Your task to perform on an android device: Search for macbook pro 13 inch on ebay.com, select the first entry, and add it to the cart. Image 0: 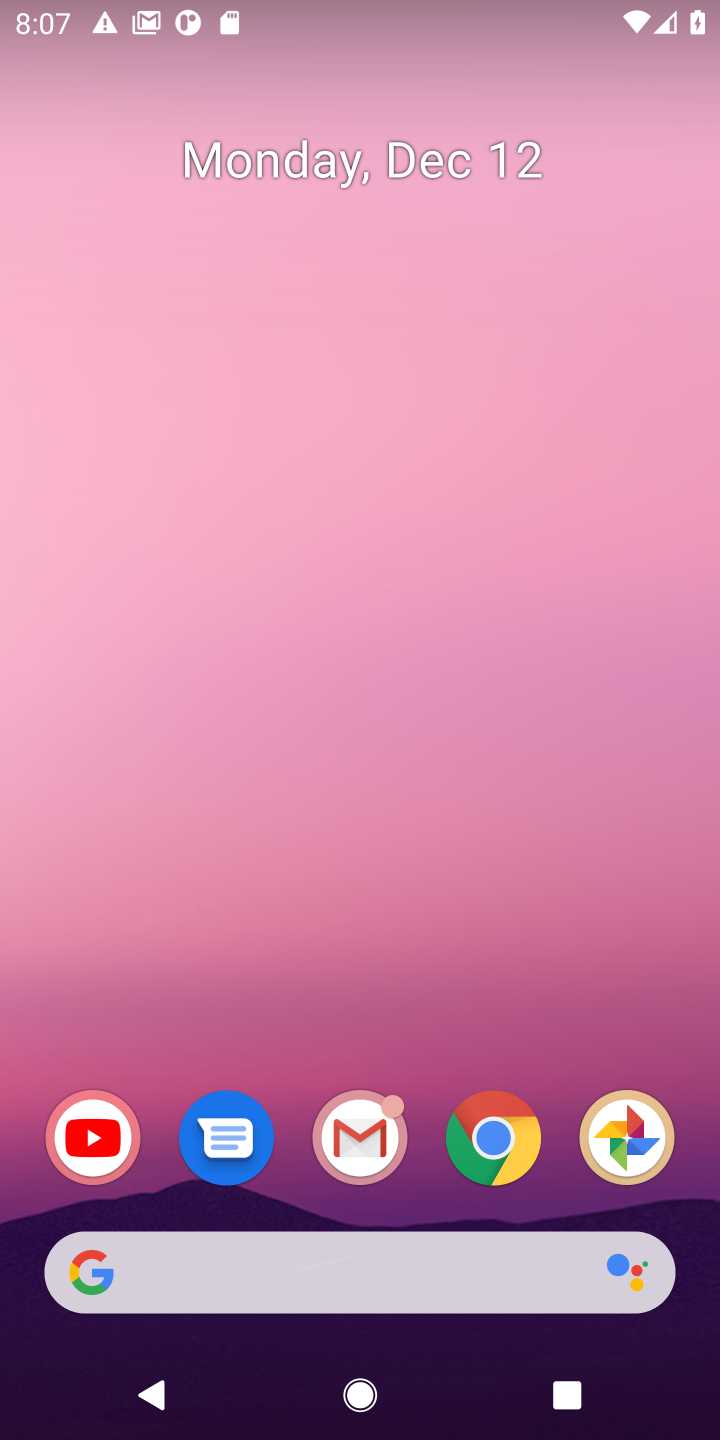
Step 0: drag from (347, 963) to (347, 414)
Your task to perform on an android device: Search for macbook pro 13 inch on ebay.com, select the first entry, and add it to the cart. Image 1: 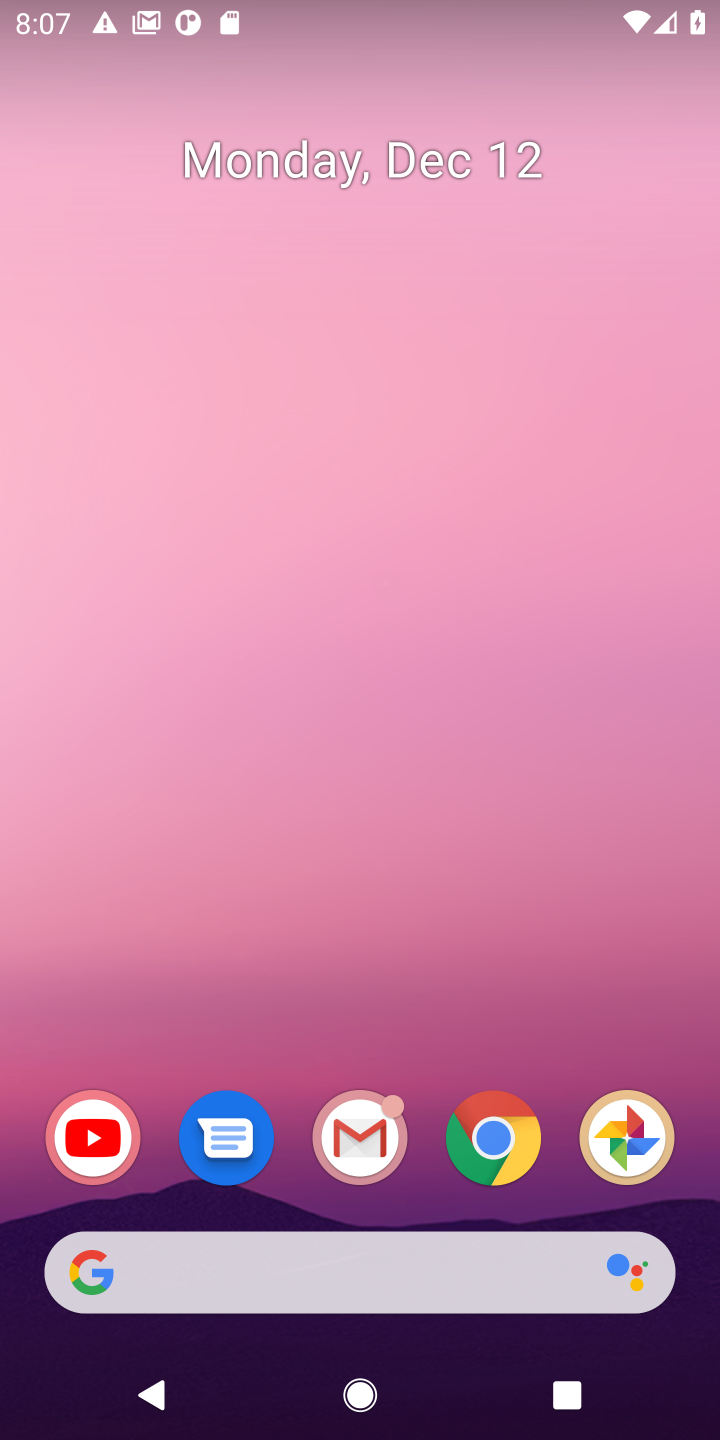
Step 1: drag from (311, 1232) to (399, 130)
Your task to perform on an android device: Search for macbook pro 13 inch on ebay.com, select the first entry, and add it to the cart. Image 2: 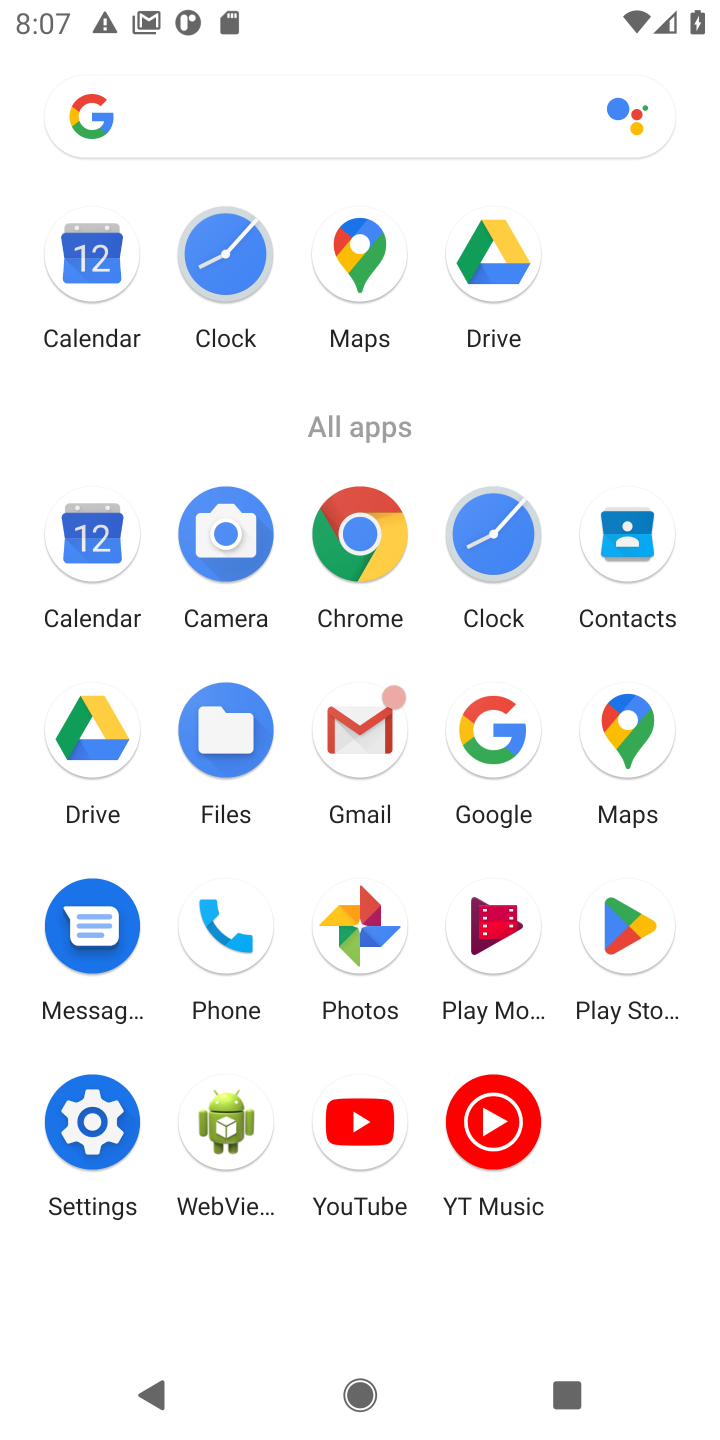
Step 2: click (489, 732)
Your task to perform on an android device: Search for macbook pro 13 inch on ebay.com, select the first entry, and add it to the cart. Image 3: 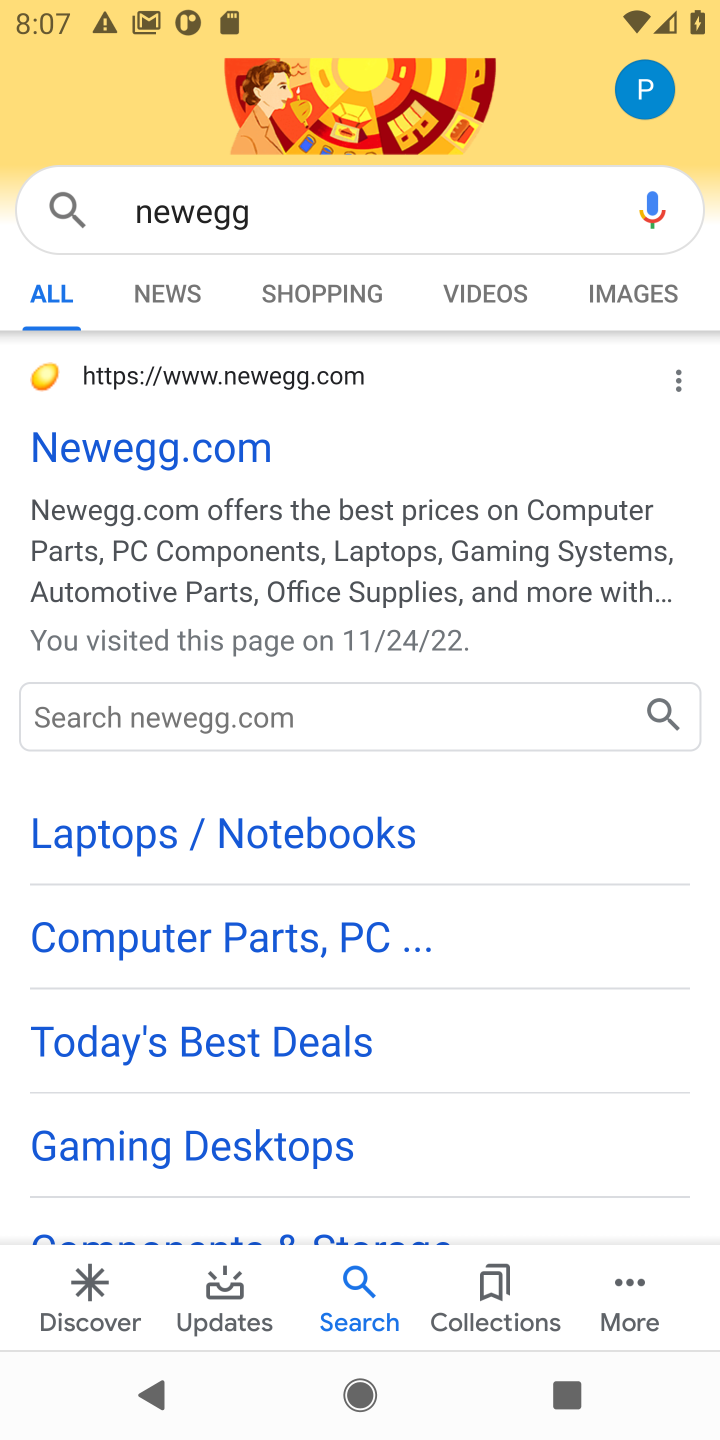
Step 3: click (200, 230)
Your task to perform on an android device: Search for macbook pro 13 inch on ebay.com, select the first entry, and add it to the cart. Image 4: 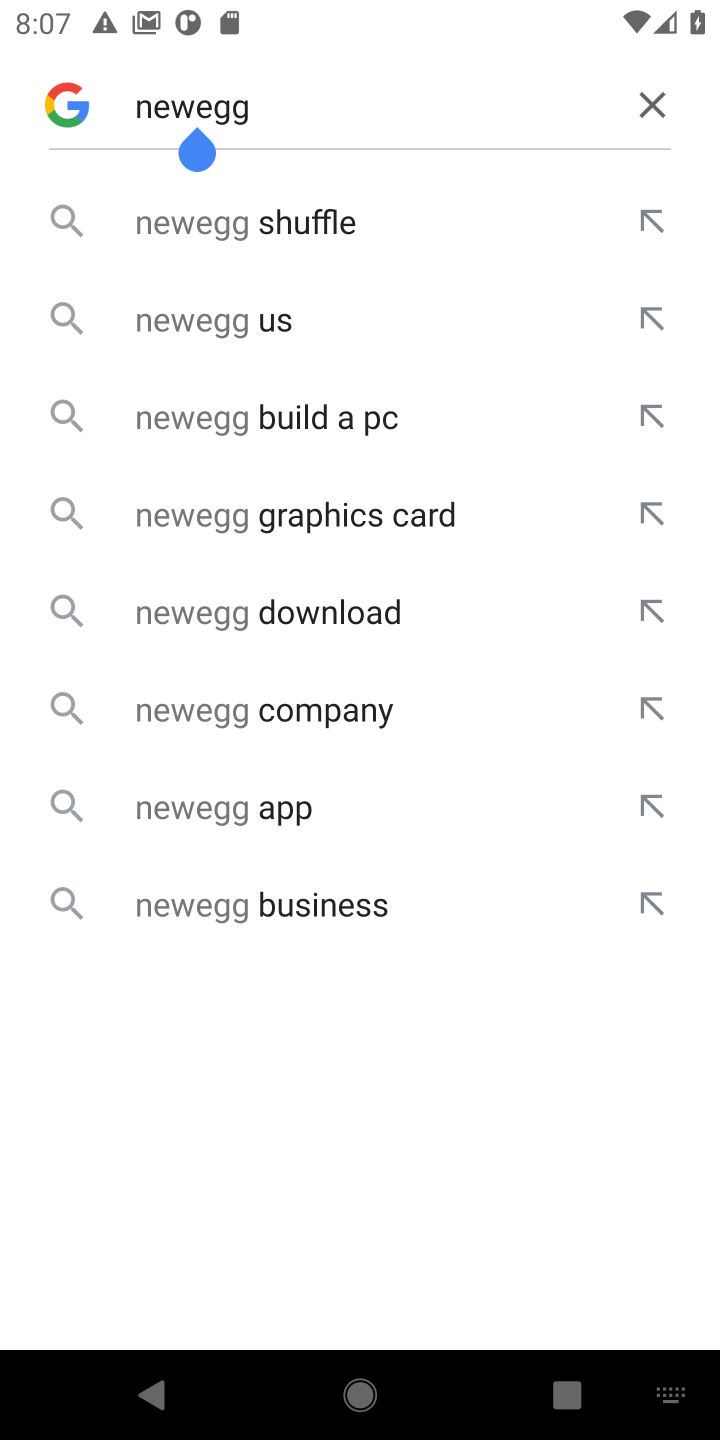
Step 4: click (646, 99)
Your task to perform on an android device: Search for macbook pro 13 inch on ebay.com, select the first entry, and add it to the cart. Image 5: 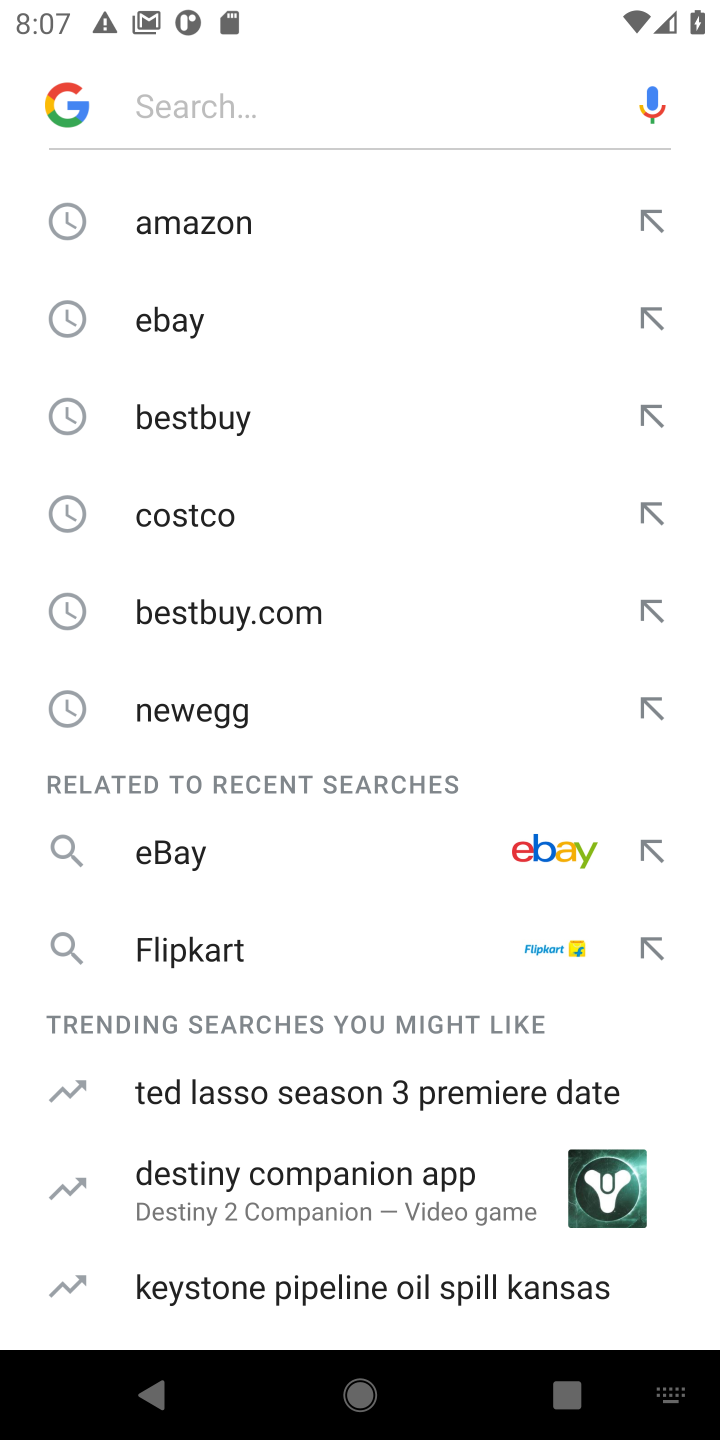
Step 5: click (152, 317)
Your task to perform on an android device: Search for macbook pro 13 inch on ebay.com, select the first entry, and add it to the cart. Image 6: 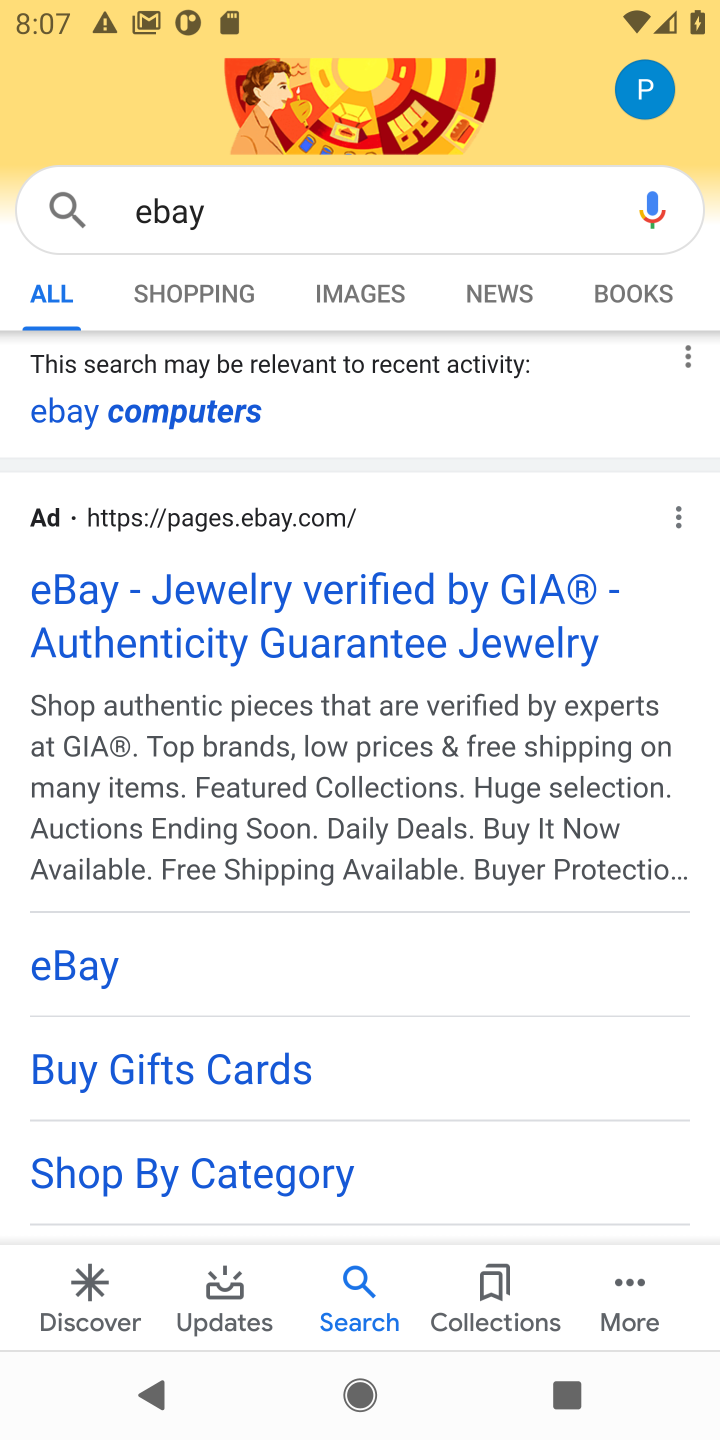
Step 6: click (151, 645)
Your task to perform on an android device: Search for macbook pro 13 inch on ebay.com, select the first entry, and add it to the cart. Image 7: 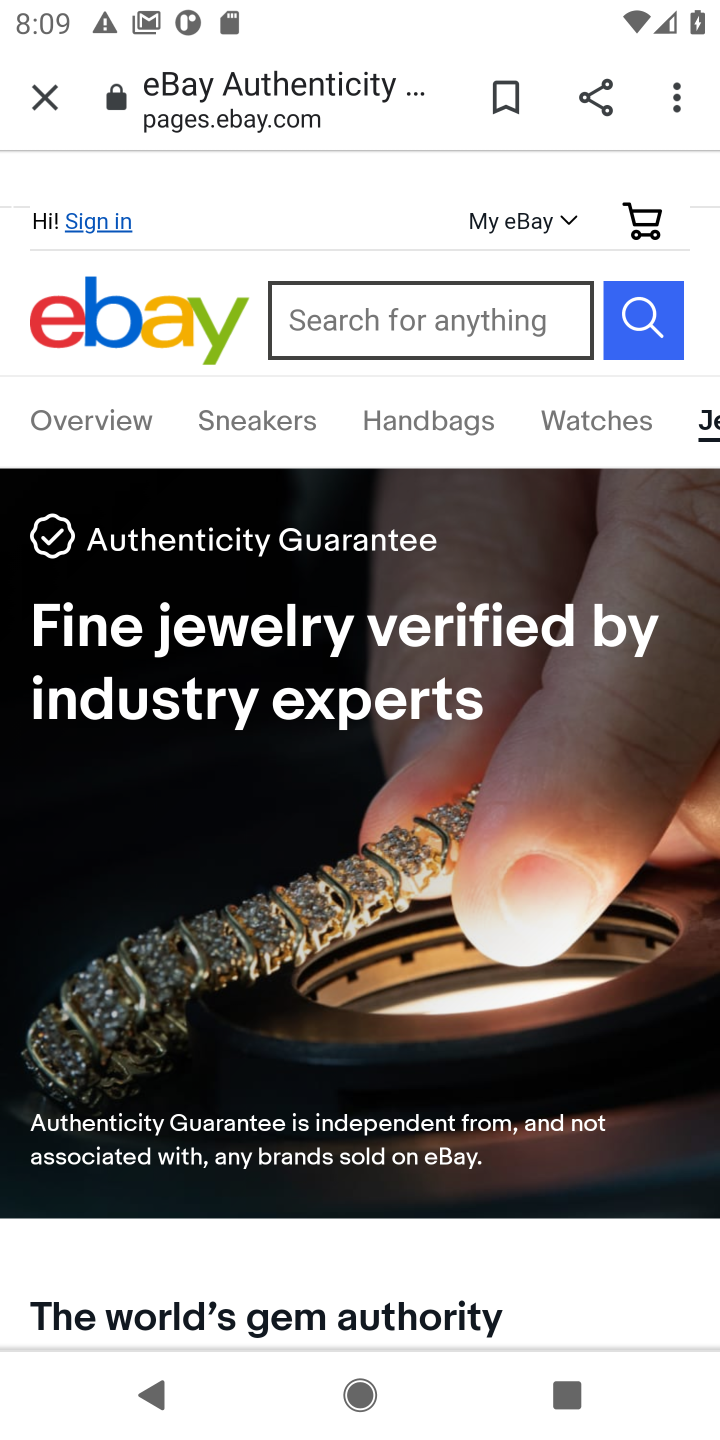
Step 7: click (394, 309)
Your task to perform on an android device: Search for macbook pro 13 inch on ebay.com, select the first entry, and add it to the cart. Image 8: 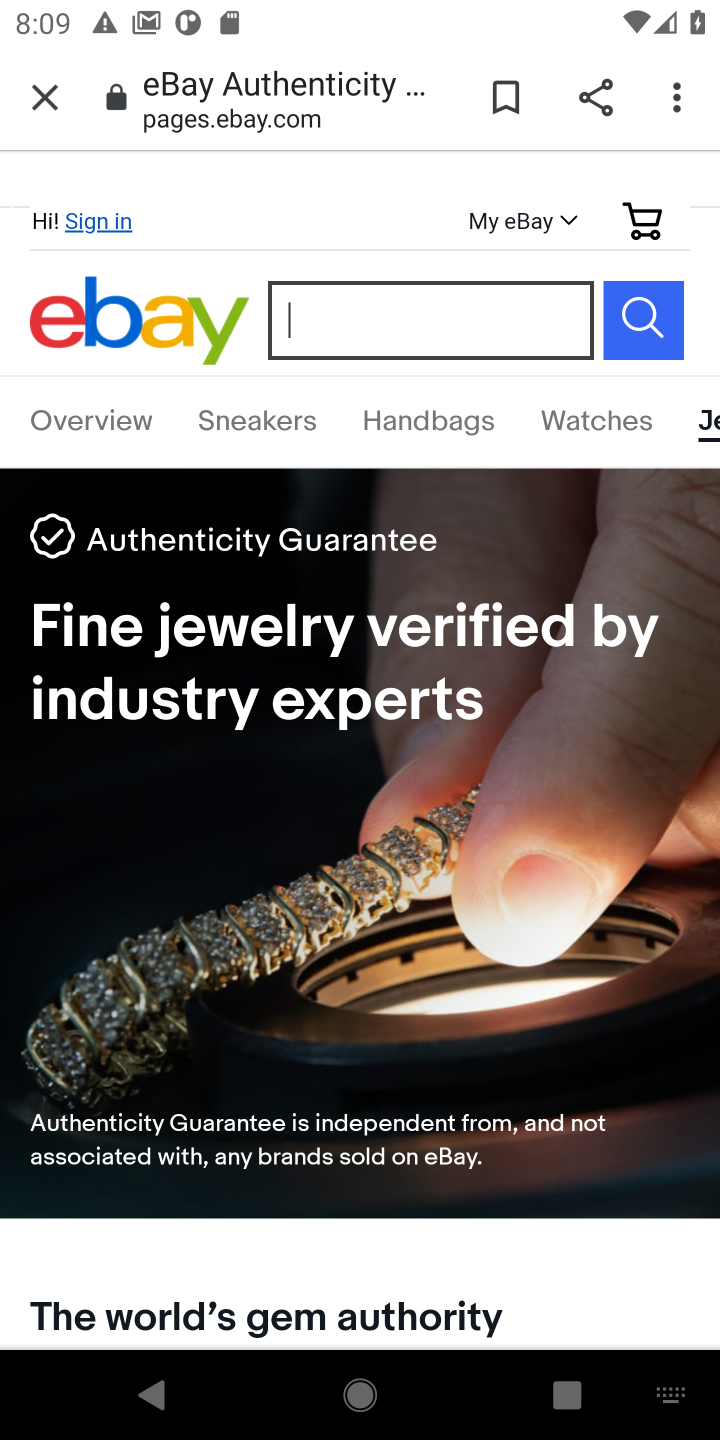
Step 8: type "macbook pro 13 inch"
Your task to perform on an android device: Search for macbook pro 13 inch on ebay.com, select the first entry, and add it to the cart. Image 9: 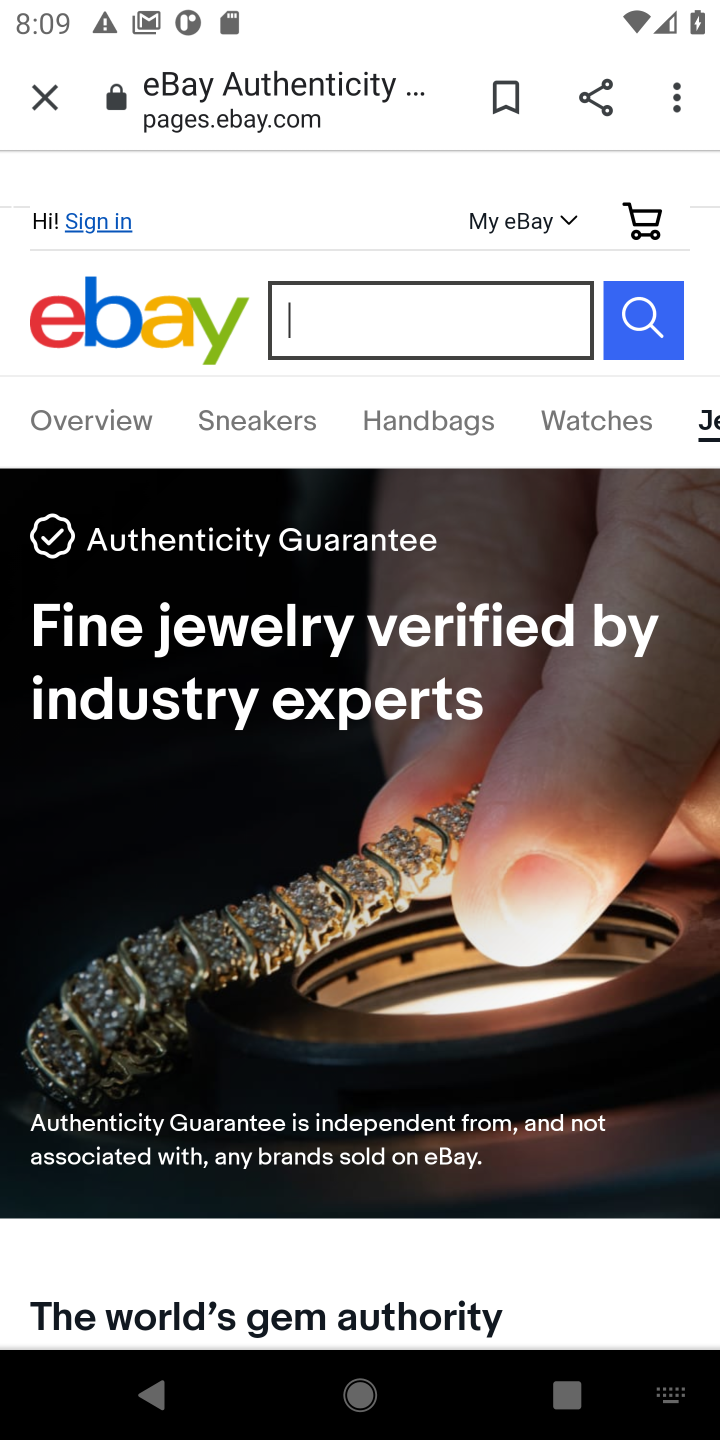
Step 9: click (641, 322)
Your task to perform on an android device: Search for macbook pro 13 inch on ebay.com, select the first entry, and add it to the cart. Image 10: 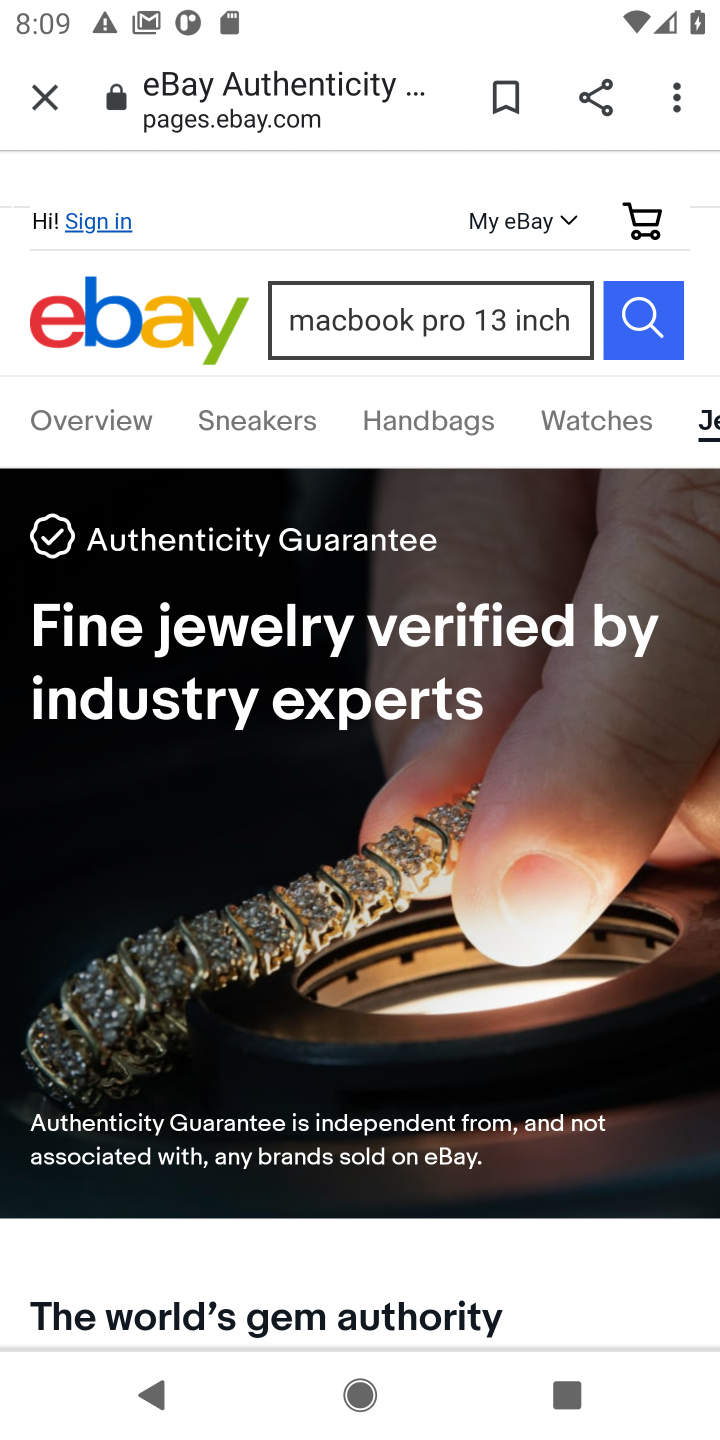
Step 10: click (648, 329)
Your task to perform on an android device: Search for macbook pro 13 inch on ebay.com, select the first entry, and add it to the cart. Image 11: 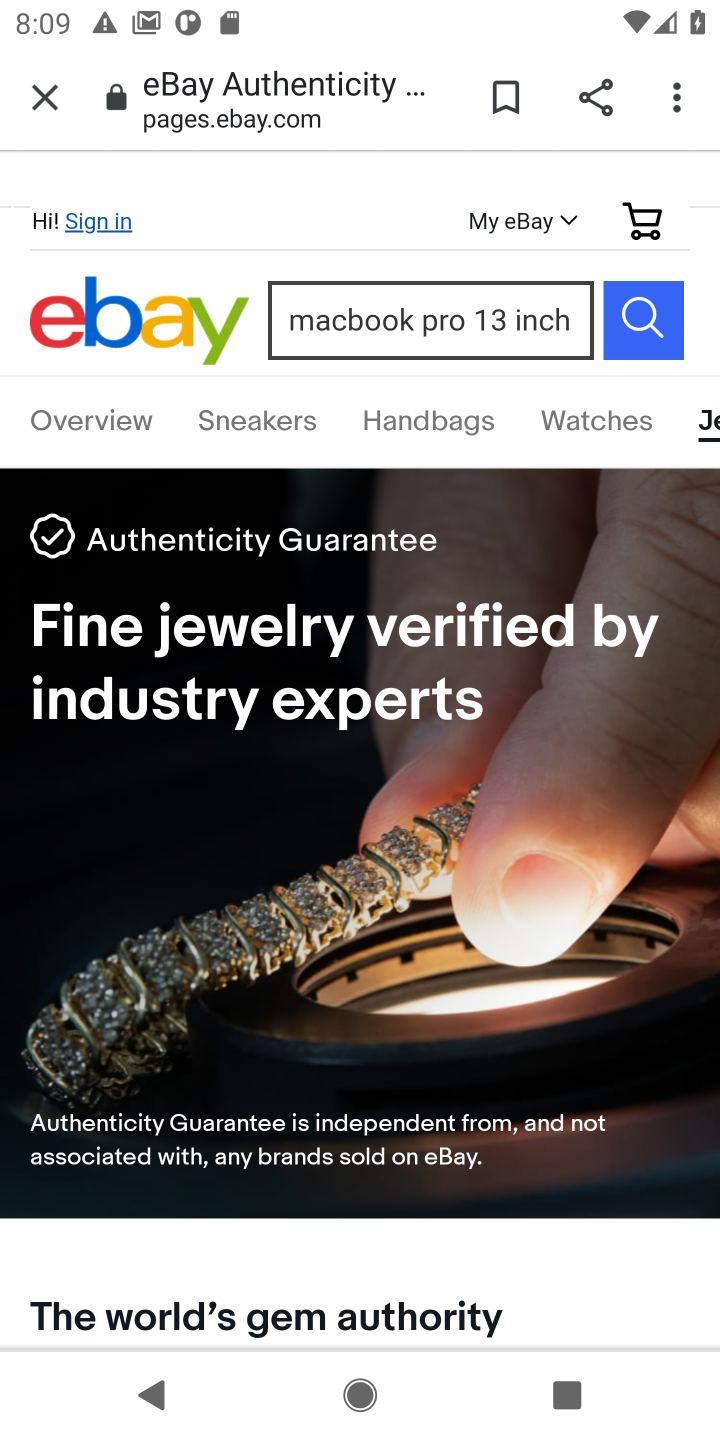
Step 11: click (653, 336)
Your task to perform on an android device: Search for macbook pro 13 inch on ebay.com, select the first entry, and add it to the cart. Image 12: 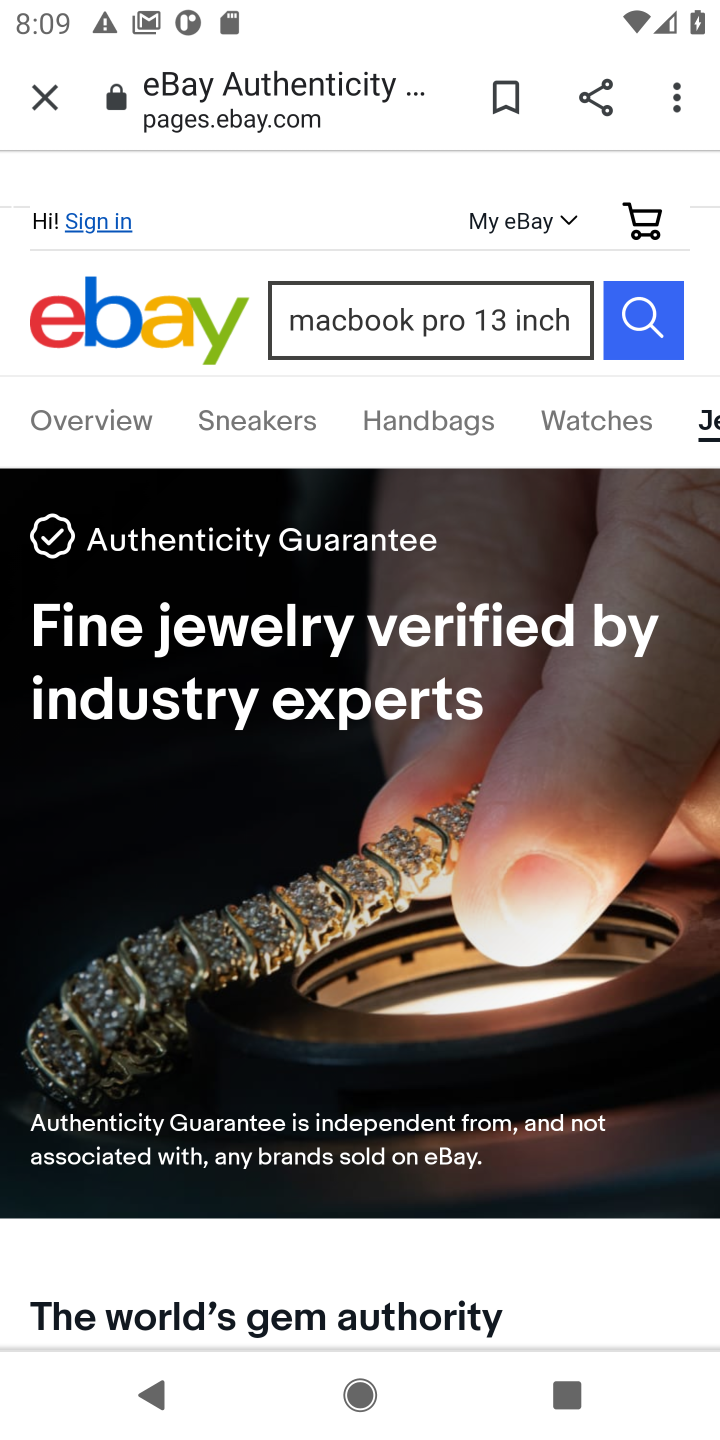
Step 12: task complete